Your task to perform on an android device: Search for a new desk on Ikea Image 0: 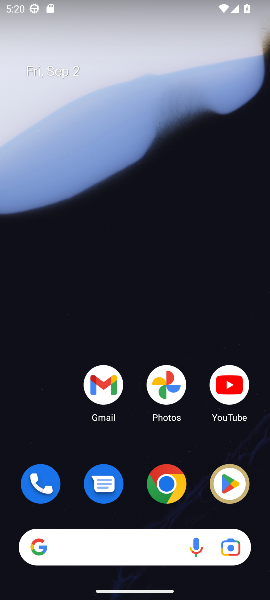
Step 0: click (169, 481)
Your task to perform on an android device: Search for a new desk on Ikea Image 1: 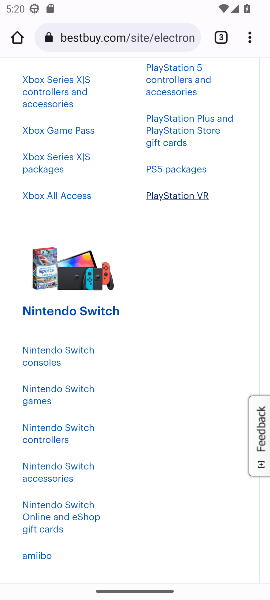
Step 1: click (158, 41)
Your task to perform on an android device: Search for a new desk on Ikea Image 2: 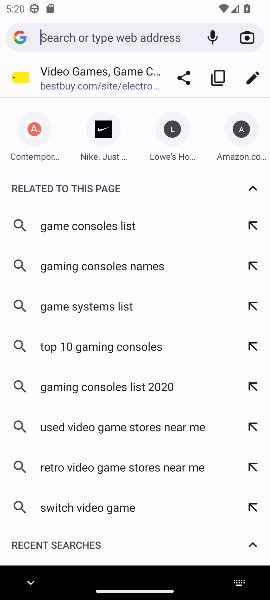
Step 2: type "Ikea"
Your task to perform on an android device: Search for a new desk on Ikea Image 3: 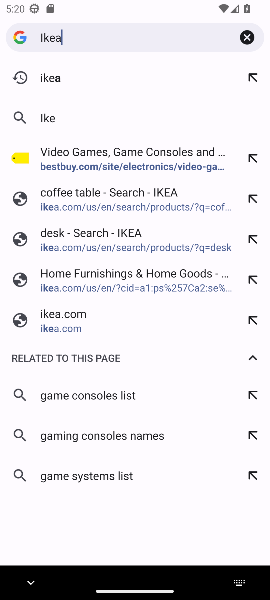
Step 3: press enter
Your task to perform on an android device: Search for a new desk on Ikea Image 4: 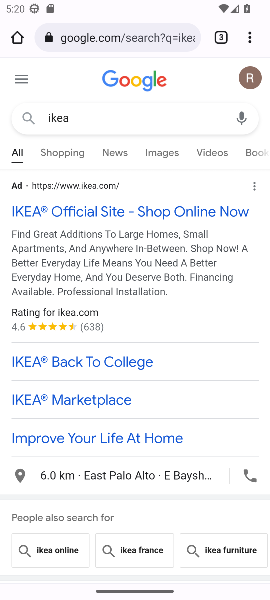
Step 4: click (151, 212)
Your task to perform on an android device: Search for a new desk on Ikea Image 5: 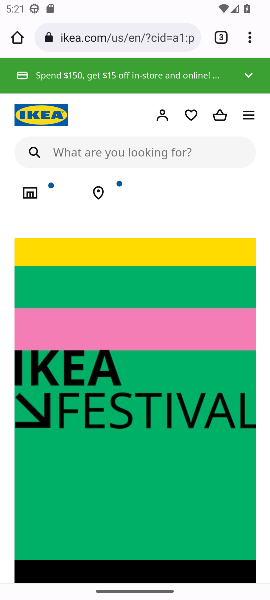
Step 5: click (115, 148)
Your task to perform on an android device: Search for a new desk on Ikea Image 6: 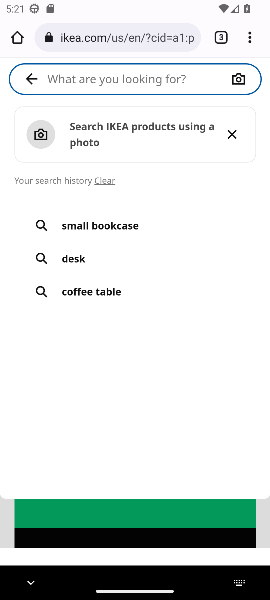
Step 6: type " desk"
Your task to perform on an android device: Search for a new desk on Ikea Image 7: 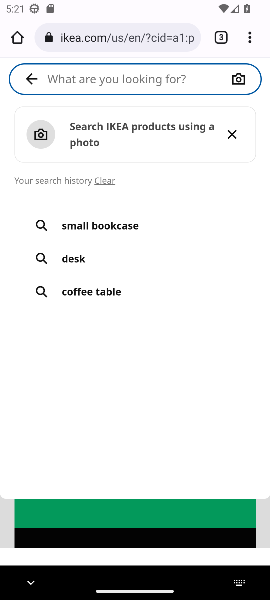
Step 7: press enter
Your task to perform on an android device: Search for a new desk on Ikea Image 8: 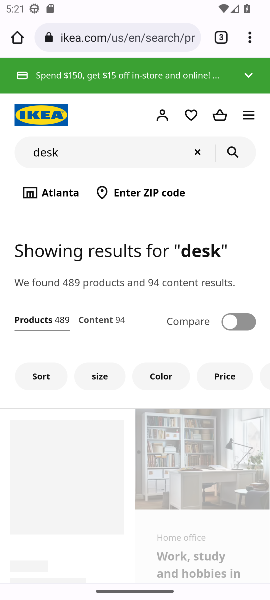
Step 8: drag from (170, 369) to (214, 199)
Your task to perform on an android device: Search for a new desk on Ikea Image 9: 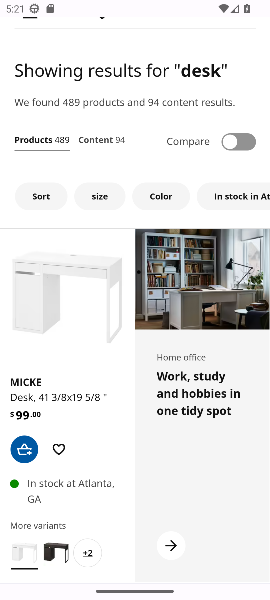
Step 9: drag from (148, 523) to (198, 104)
Your task to perform on an android device: Search for a new desk on Ikea Image 10: 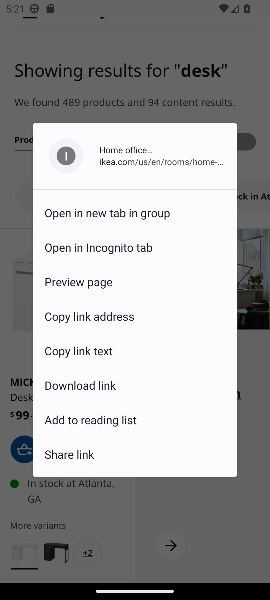
Step 10: click (260, 376)
Your task to perform on an android device: Search for a new desk on Ikea Image 11: 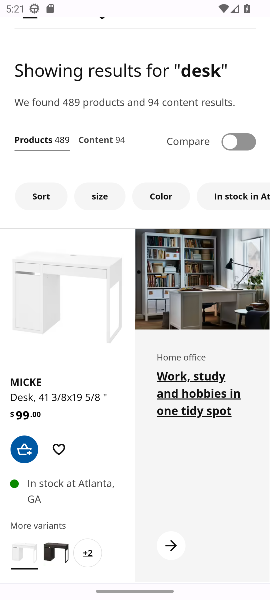
Step 11: task complete